Your task to perform on an android device: toggle priority inbox in the gmail app Image 0: 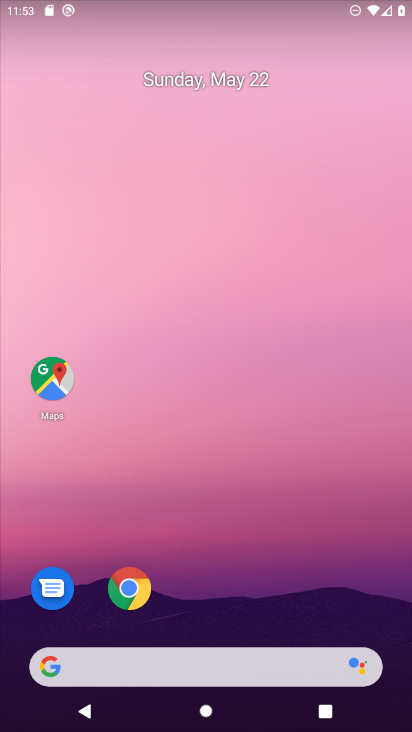
Step 0: press home button
Your task to perform on an android device: toggle priority inbox in the gmail app Image 1: 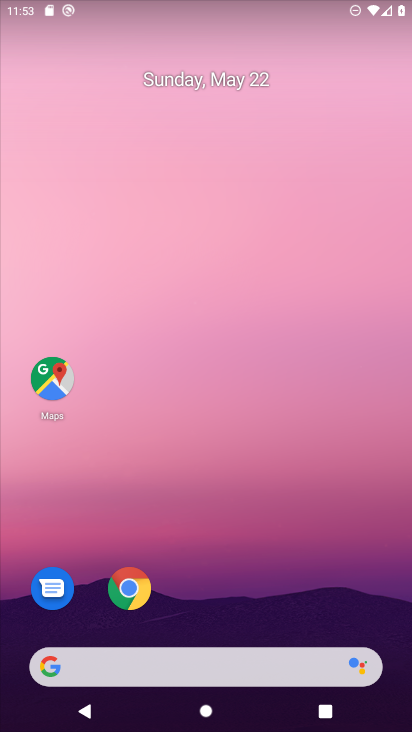
Step 1: drag from (258, 691) to (160, 248)
Your task to perform on an android device: toggle priority inbox in the gmail app Image 2: 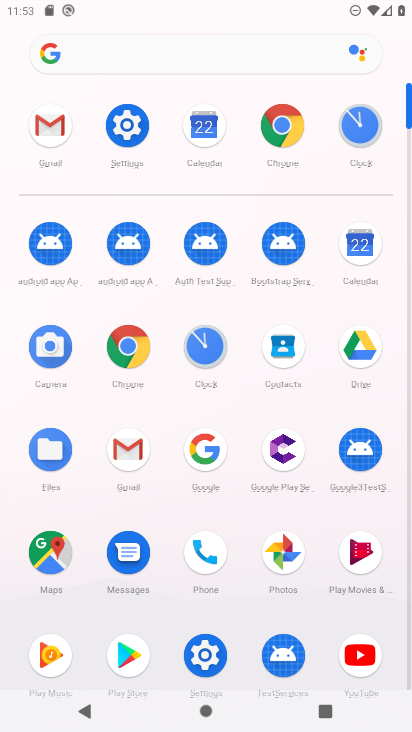
Step 2: click (124, 136)
Your task to perform on an android device: toggle priority inbox in the gmail app Image 3: 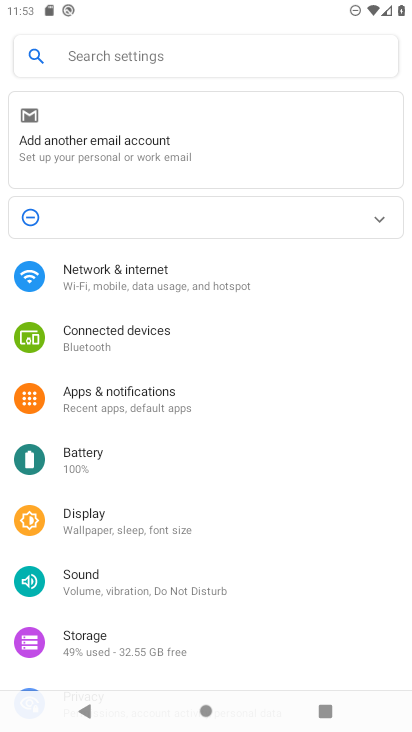
Step 3: press home button
Your task to perform on an android device: toggle priority inbox in the gmail app Image 4: 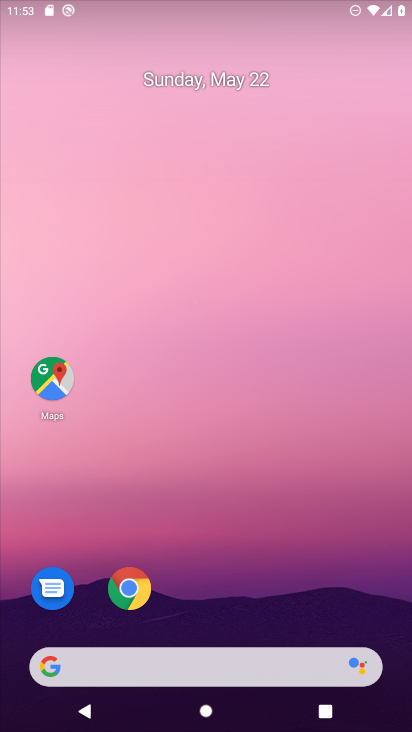
Step 4: drag from (247, 680) to (336, 87)
Your task to perform on an android device: toggle priority inbox in the gmail app Image 5: 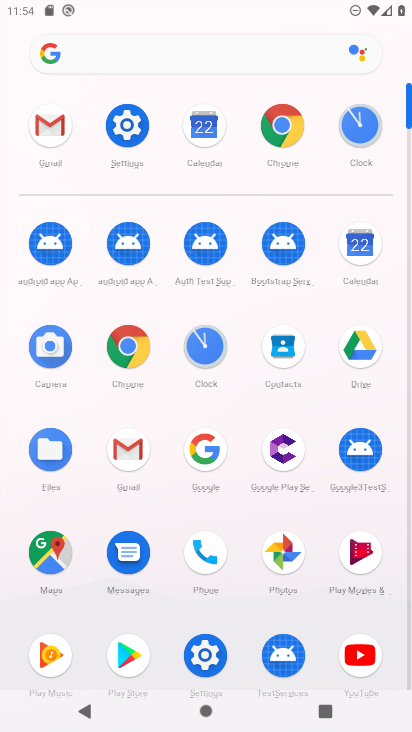
Step 5: click (119, 433)
Your task to perform on an android device: toggle priority inbox in the gmail app Image 6: 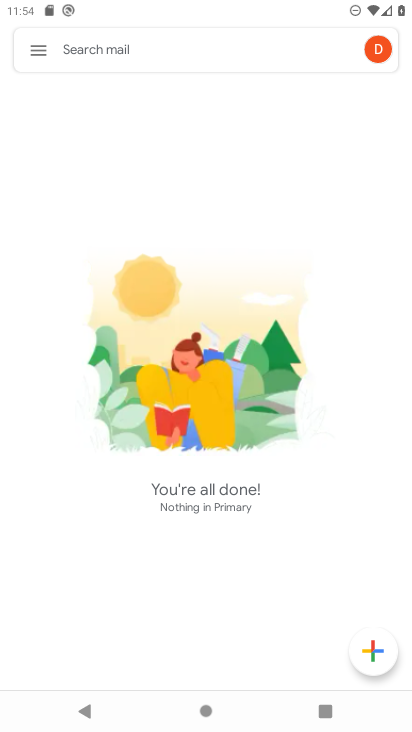
Step 6: click (44, 35)
Your task to perform on an android device: toggle priority inbox in the gmail app Image 7: 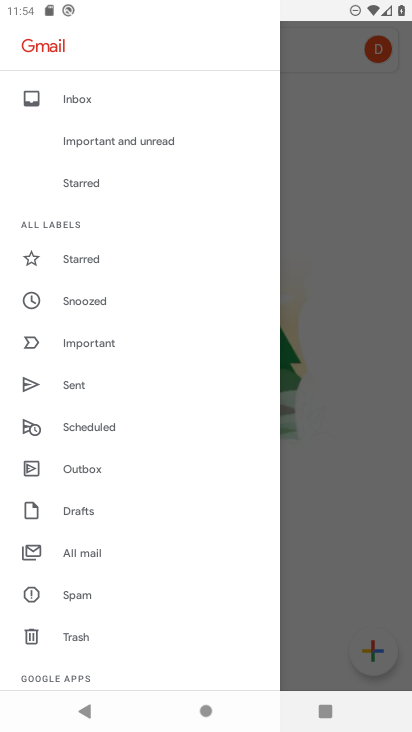
Step 7: drag from (117, 605) to (206, 217)
Your task to perform on an android device: toggle priority inbox in the gmail app Image 8: 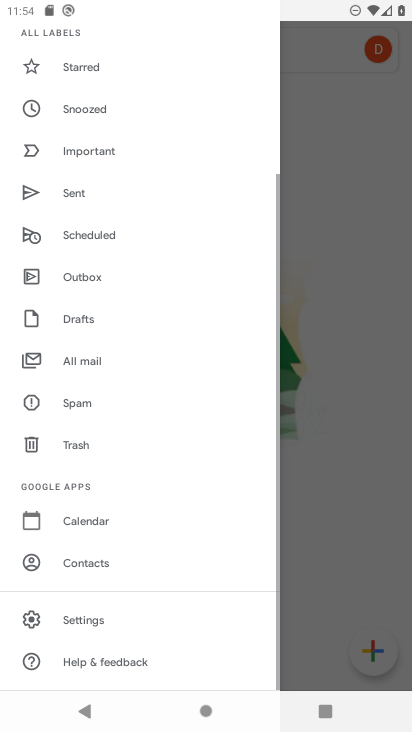
Step 8: click (127, 621)
Your task to perform on an android device: toggle priority inbox in the gmail app Image 9: 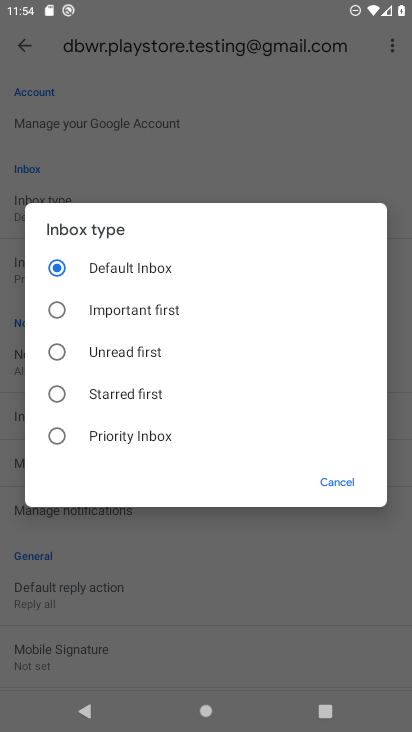
Step 9: click (129, 441)
Your task to perform on an android device: toggle priority inbox in the gmail app Image 10: 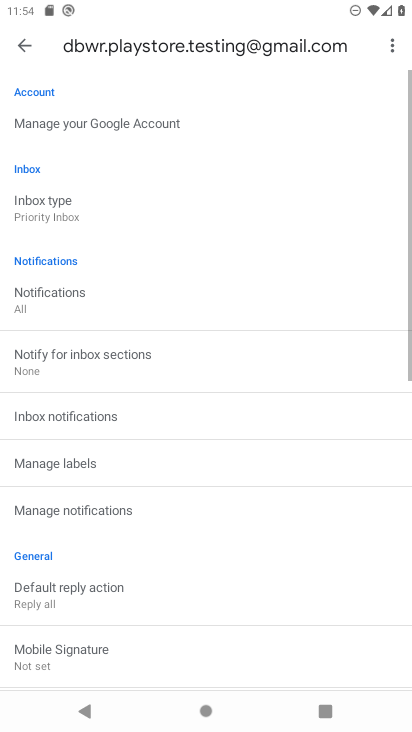
Step 10: task complete